Your task to perform on an android device: change keyboard looks Image 0: 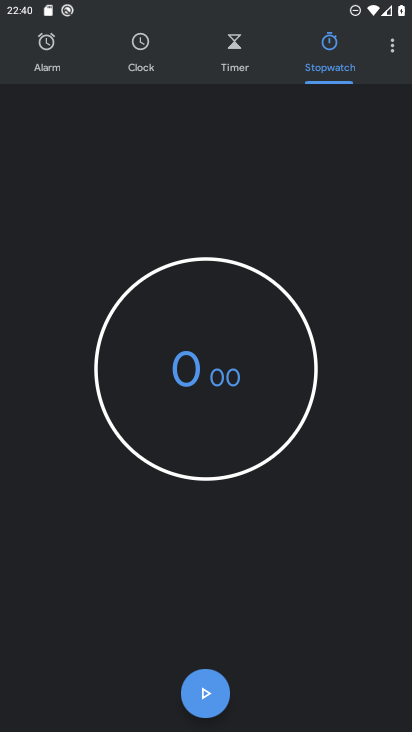
Step 0: press home button
Your task to perform on an android device: change keyboard looks Image 1: 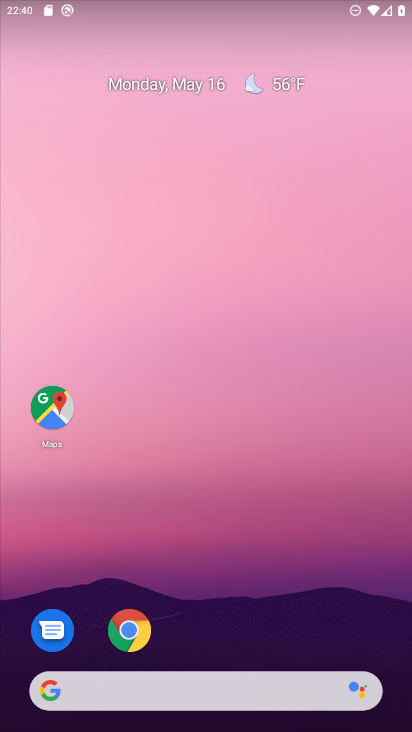
Step 1: drag from (233, 592) to (248, 3)
Your task to perform on an android device: change keyboard looks Image 2: 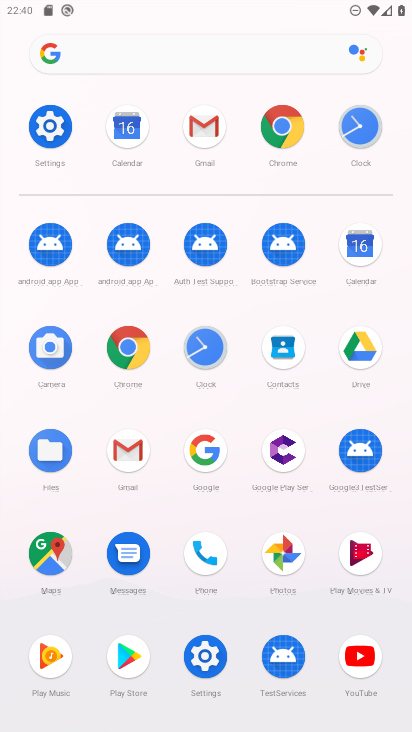
Step 2: click (48, 134)
Your task to perform on an android device: change keyboard looks Image 3: 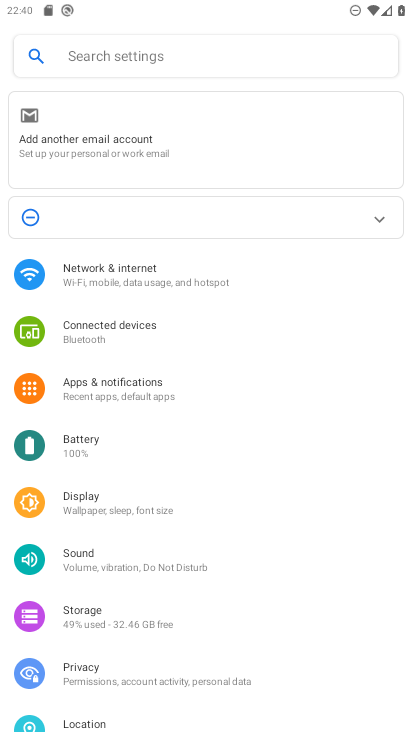
Step 3: drag from (115, 554) to (136, 329)
Your task to perform on an android device: change keyboard looks Image 4: 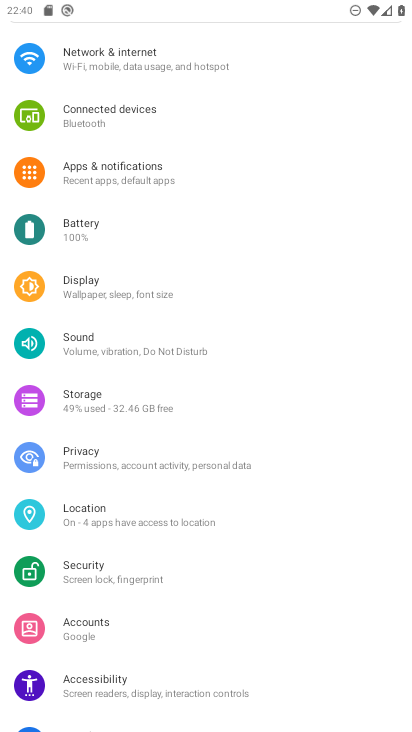
Step 4: drag from (99, 573) to (136, 322)
Your task to perform on an android device: change keyboard looks Image 5: 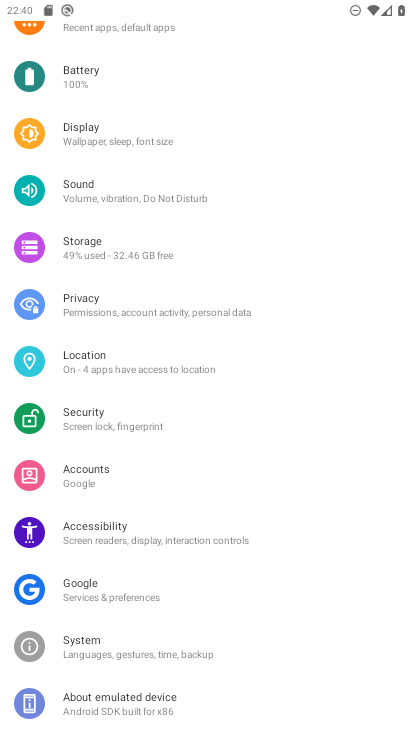
Step 5: click (112, 642)
Your task to perform on an android device: change keyboard looks Image 6: 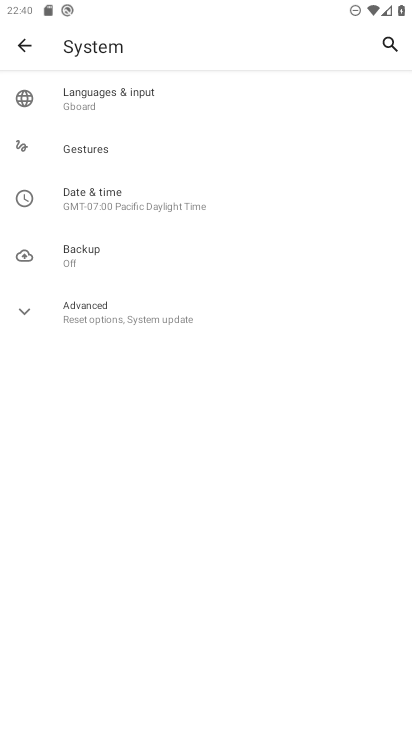
Step 6: click (115, 98)
Your task to perform on an android device: change keyboard looks Image 7: 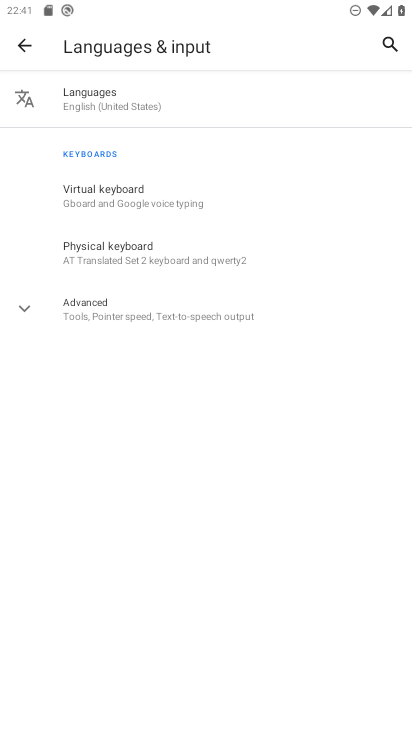
Step 7: click (117, 201)
Your task to perform on an android device: change keyboard looks Image 8: 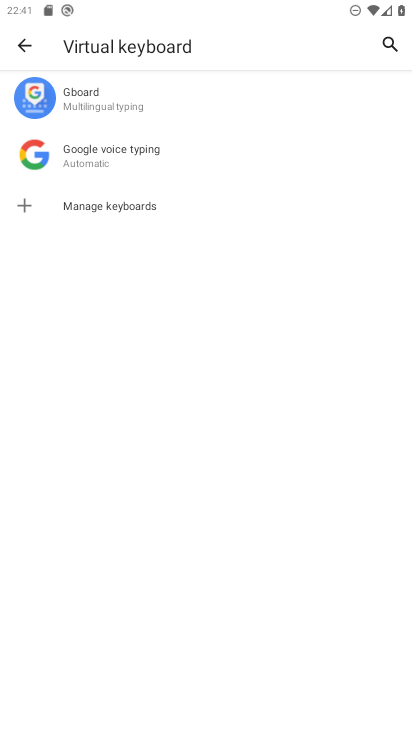
Step 8: click (100, 99)
Your task to perform on an android device: change keyboard looks Image 9: 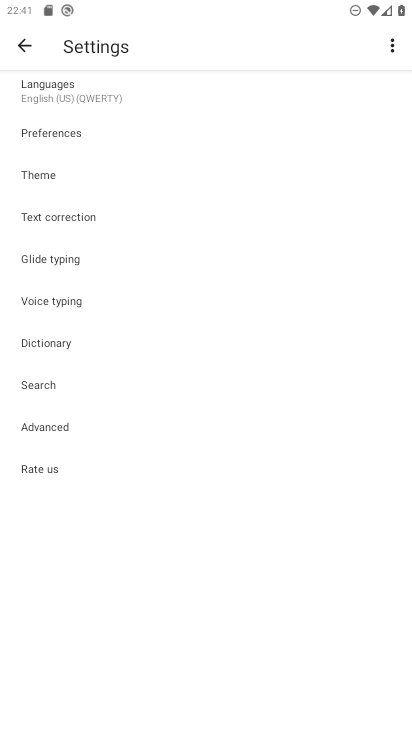
Step 9: click (46, 178)
Your task to perform on an android device: change keyboard looks Image 10: 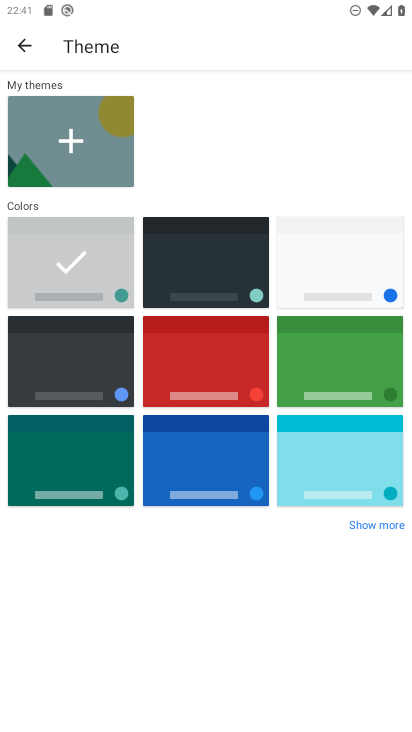
Step 10: click (165, 363)
Your task to perform on an android device: change keyboard looks Image 11: 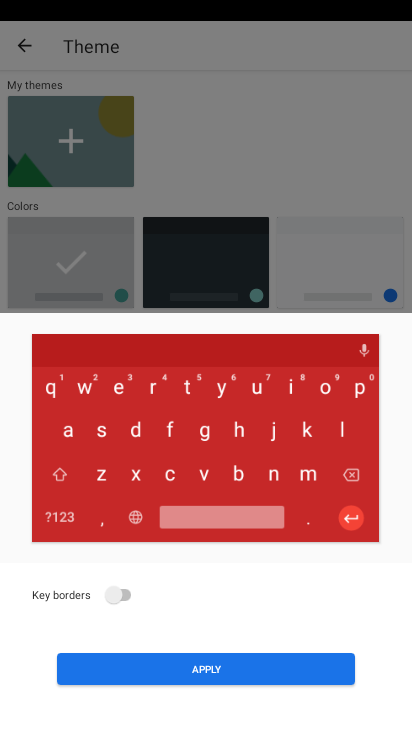
Step 11: click (231, 676)
Your task to perform on an android device: change keyboard looks Image 12: 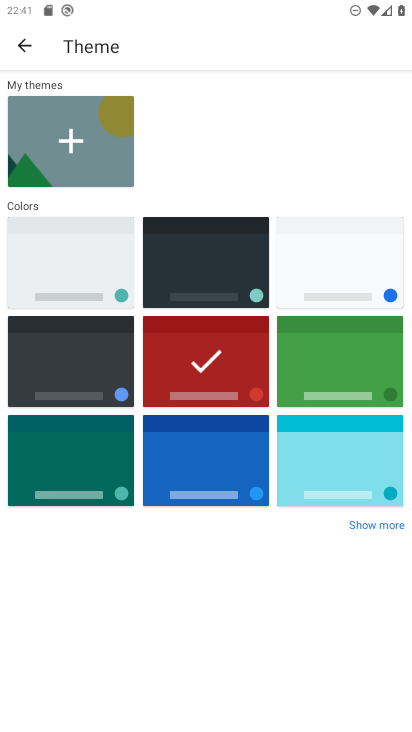
Step 12: task complete